Your task to perform on an android device: Open eBay Image 0: 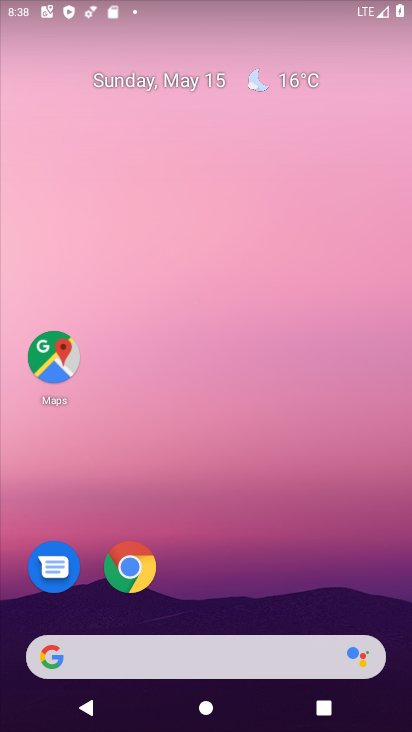
Step 0: click (132, 562)
Your task to perform on an android device: Open eBay Image 1: 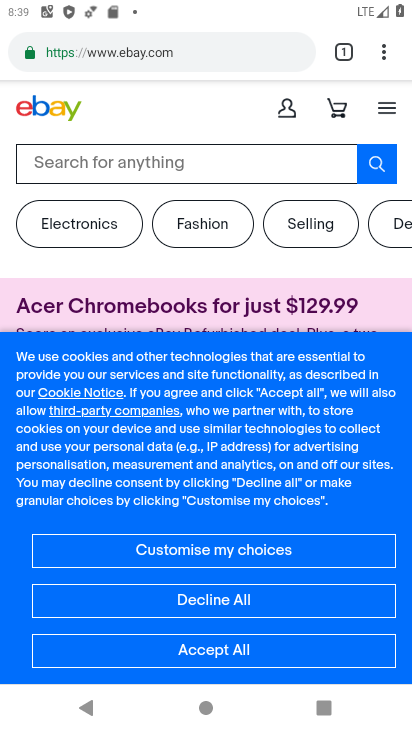
Step 1: task complete